Your task to perform on an android device: open a bookmark in the chrome app Image 0: 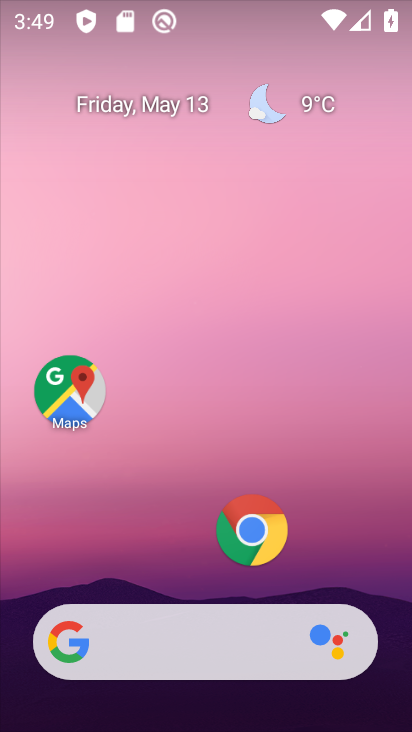
Step 0: click (256, 531)
Your task to perform on an android device: open a bookmark in the chrome app Image 1: 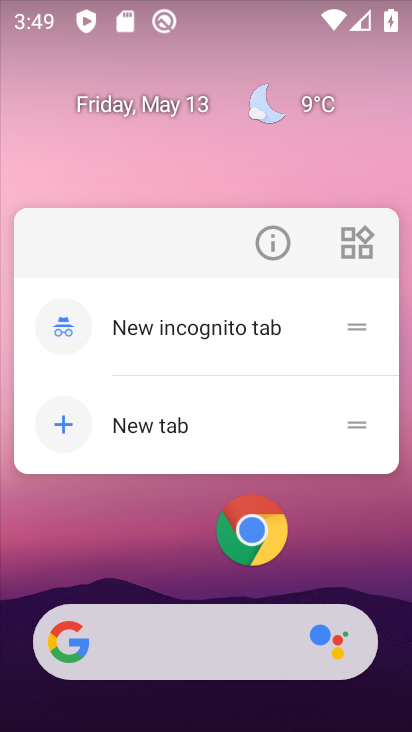
Step 1: click (252, 519)
Your task to perform on an android device: open a bookmark in the chrome app Image 2: 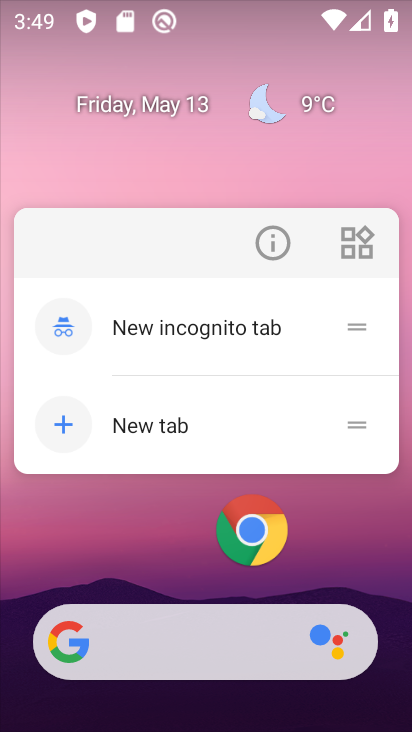
Step 2: click (252, 519)
Your task to perform on an android device: open a bookmark in the chrome app Image 3: 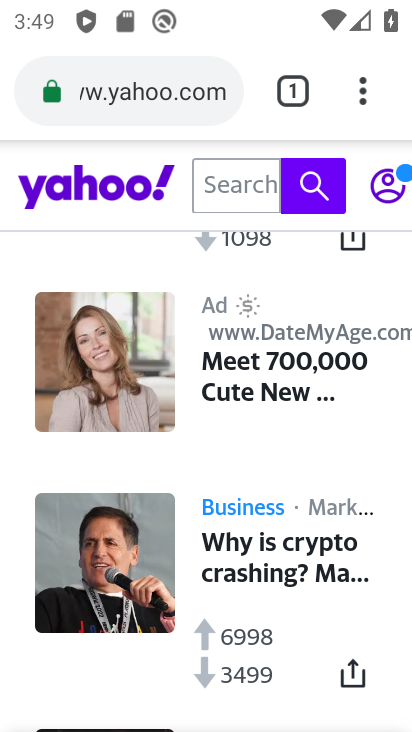
Step 3: click (366, 86)
Your task to perform on an android device: open a bookmark in the chrome app Image 4: 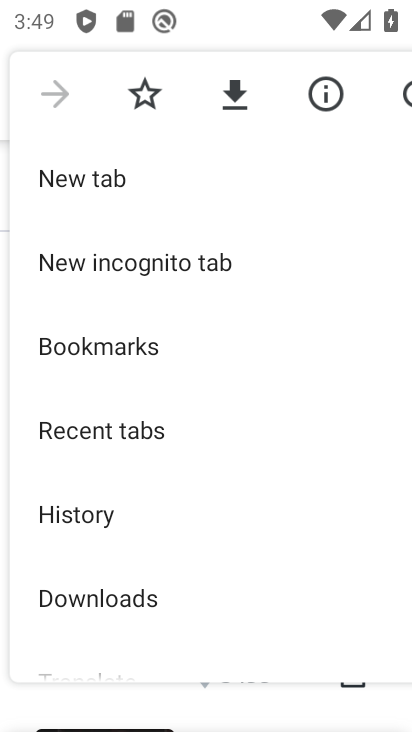
Step 4: click (165, 341)
Your task to perform on an android device: open a bookmark in the chrome app Image 5: 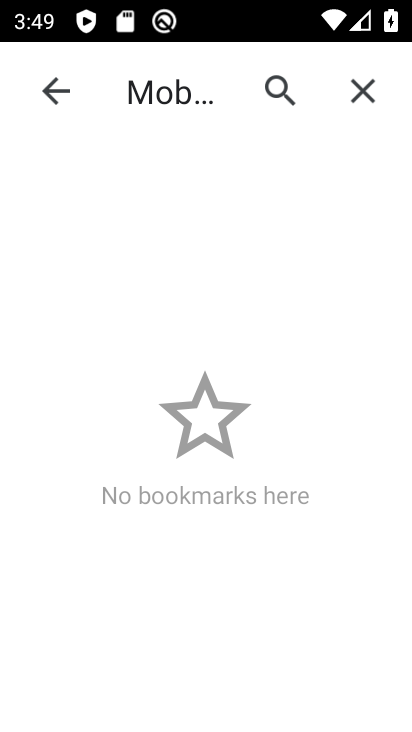
Step 5: task complete